Your task to perform on an android device: toggle wifi Image 0: 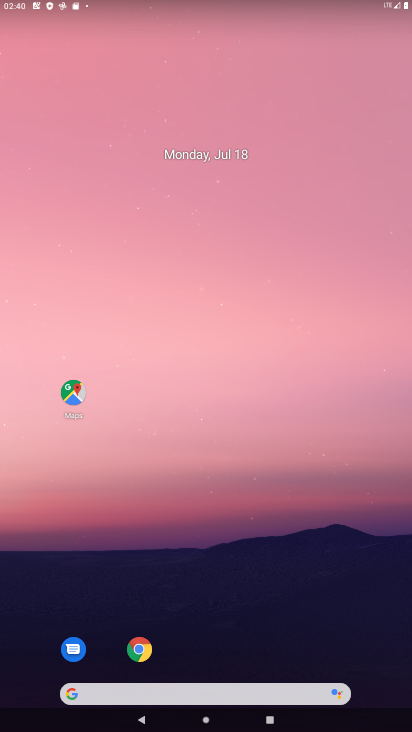
Step 0: drag from (245, 701) to (121, 31)
Your task to perform on an android device: toggle wifi Image 1: 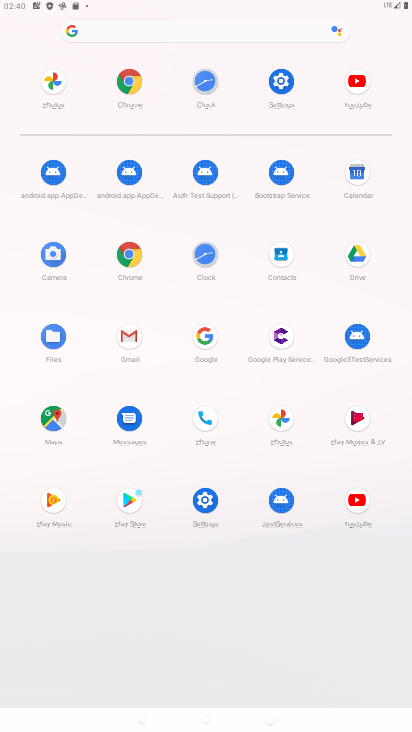
Step 1: click (294, 76)
Your task to perform on an android device: toggle wifi Image 2: 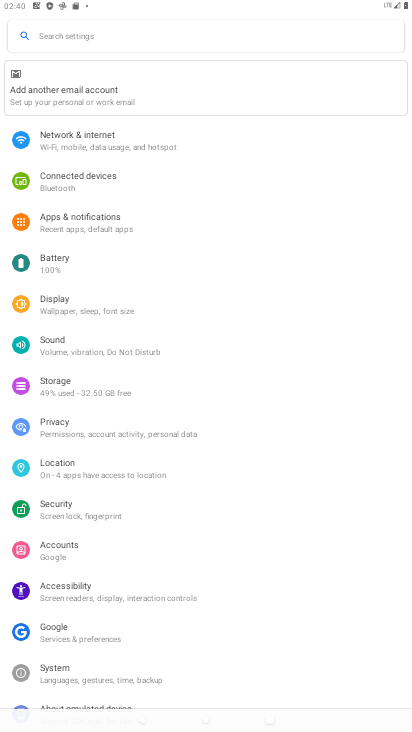
Step 2: click (167, 139)
Your task to perform on an android device: toggle wifi Image 3: 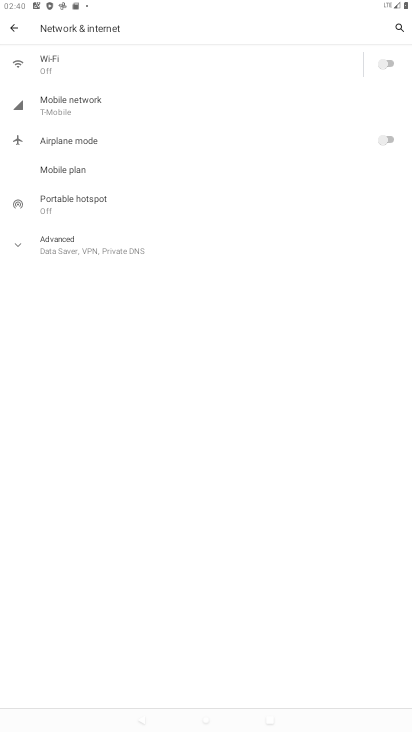
Step 3: click (82, 67)
Your task to perform on an android device: toggle wifi Image 4: 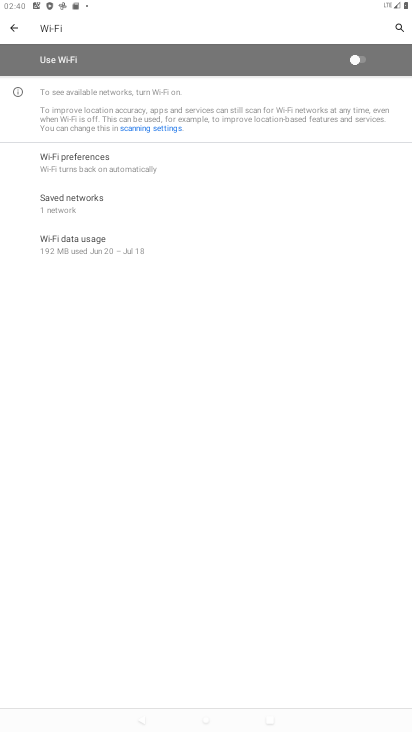
Step 4: click (362, 63)
Your task to perform on an android device: toggle wifi Image 5: 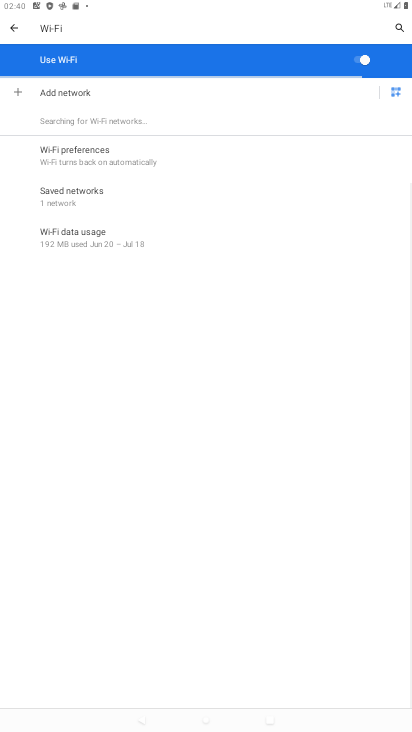
Step 5: task complete